Your task to perform on an android device: Open sound settings Image 0: 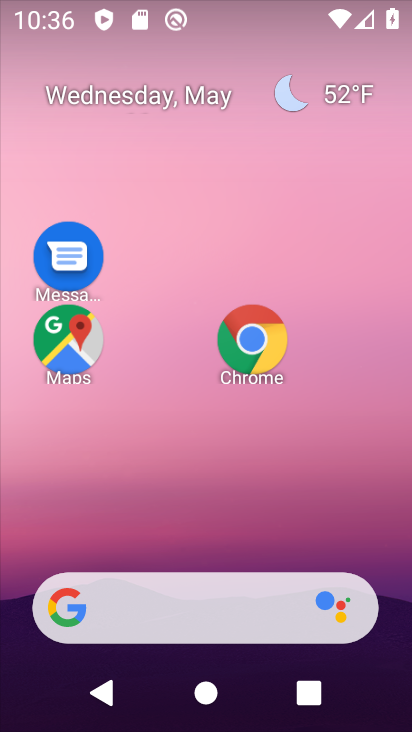
Step 0: drag from (227, 514) to (220, 100)
Your task to perform on an android device: Open sound settings Image 1: 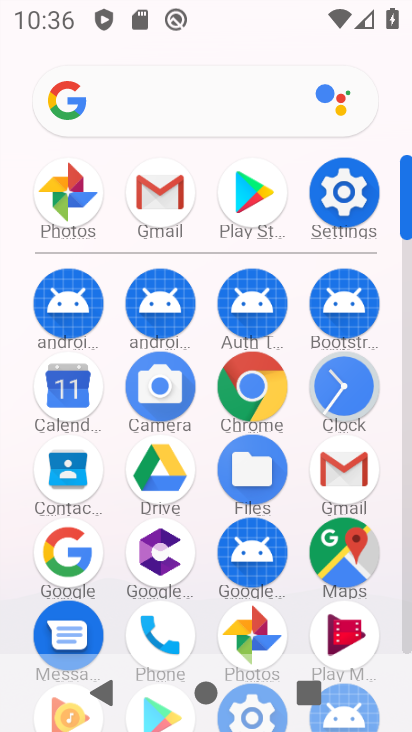
Step 1: click (348, 202)
Your task to perform on an android device: Open sound settings Image 2: 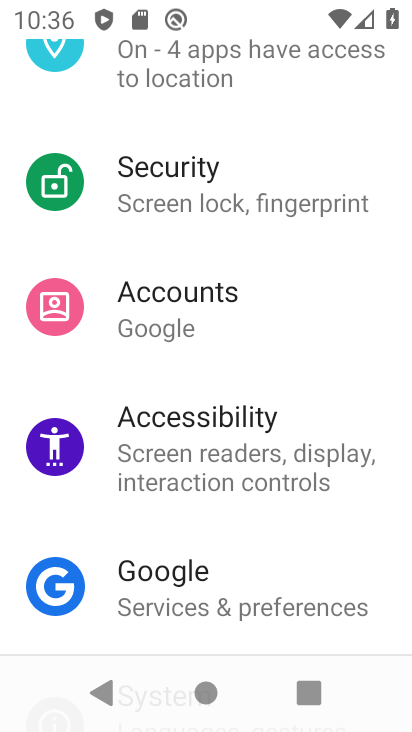
Step 2: drag from (214, 158) to (214, 620)
Your task to perform on an android device: Open sound settings Image 3: 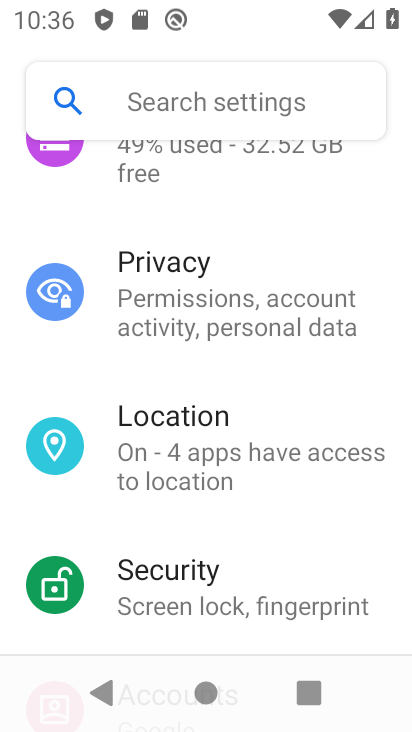
Step 3: drag from (193, 212) to (212, 679)
Your task to perform on an android device: Open sound settings Image 4: 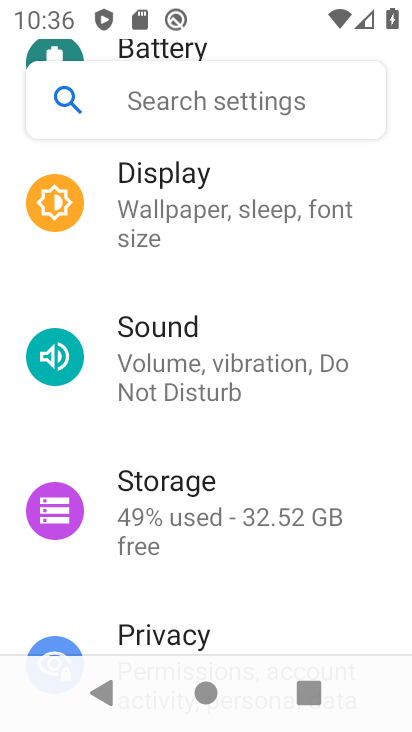
Step 4: click (182, 368)
Your task to perform on an android device: Open sound settings Image 5: 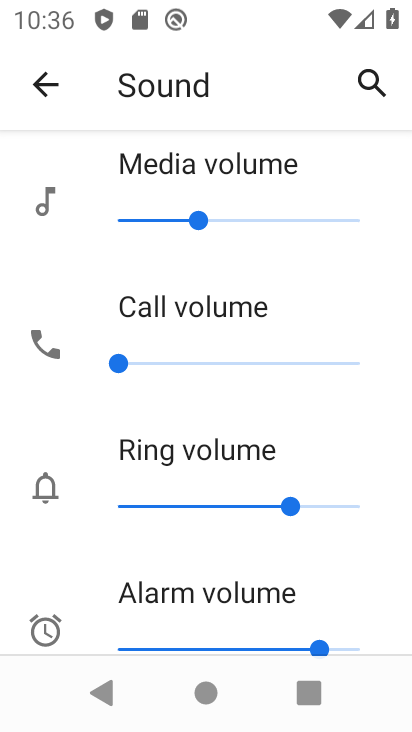
Step 5: task complete